Your task to perform on an android device: Toggle the flashlight Image 0: 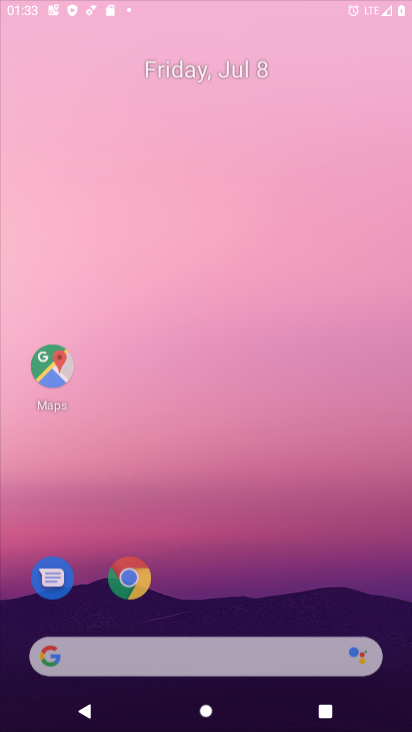
Step 0: click (319, 58)
Your task to perform on an android device: Toggle the flashlight Image 1: 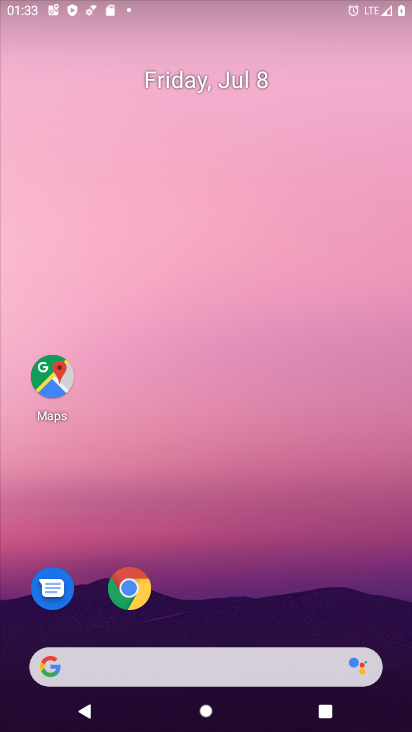
Step 1: drag from (204, 493) to (215, 82)
Your task to perform on an android device: Toggle the flashlight Image 2: 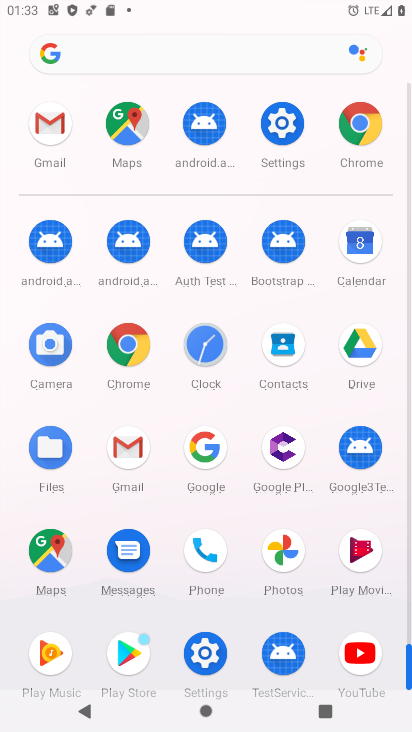
Step 2: click (271, 129)
Your task to perform on an android device: Toggle the flashlight Image 3: 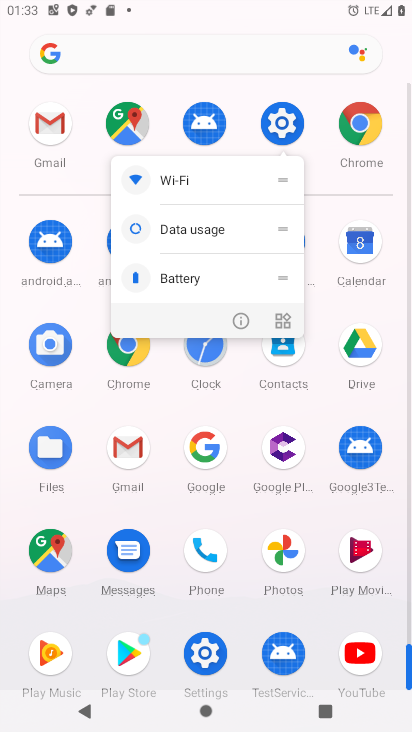
Step 3: click (236, 314)
Your task to perform on an android device: Toggle the flashlight Image 4: 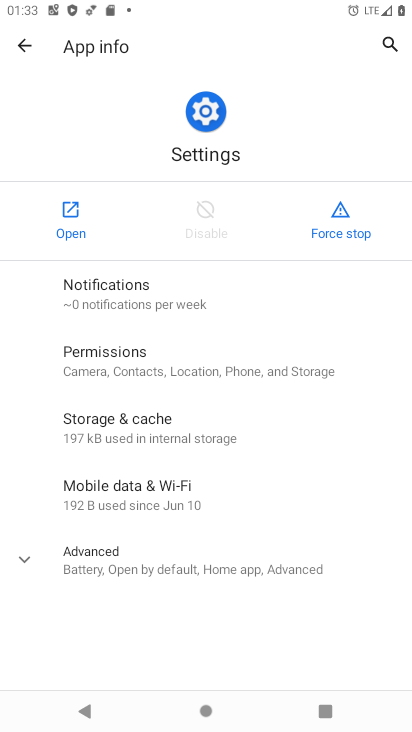
Step 4: click (67, 214)
Your task to perform on an android device: Toggle the flashlight Image 5: 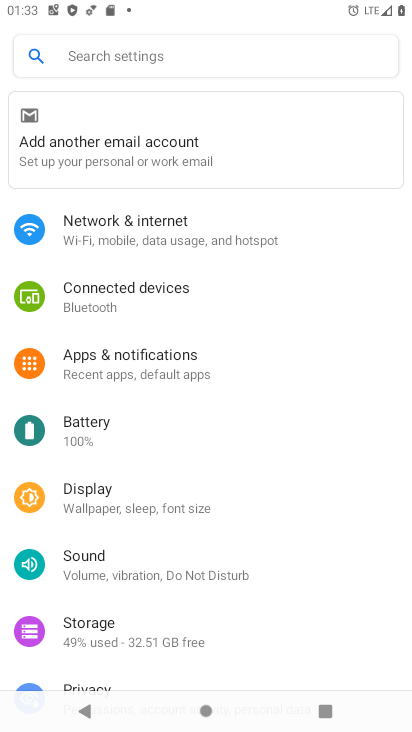
Step 5: click (187, 48)
Your task to perform on an android device: Toggle the flashlight Image 6: 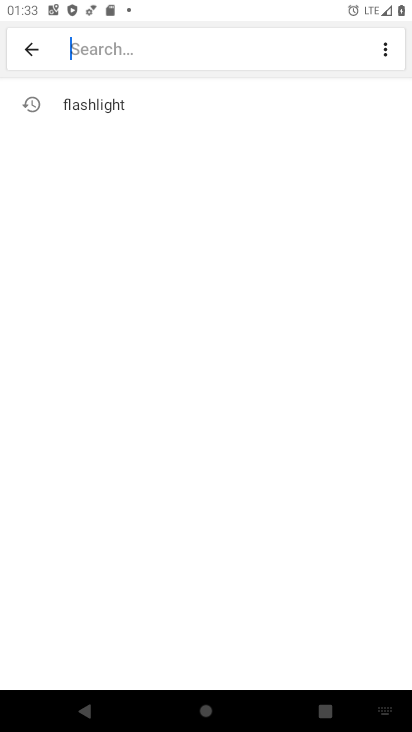
Step 6: click (103, 111)
Your task to perform on an android device: Toggle the flashlight Image 7: 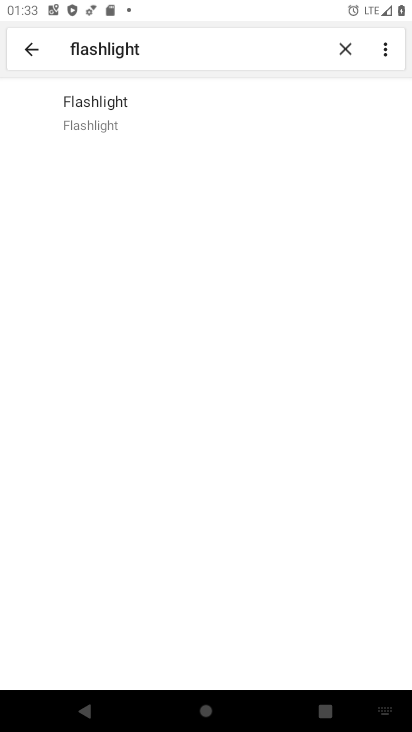
Step 7: click (135, 105)
Your task to perform on an android device: Toggle the flashlight Image 8: 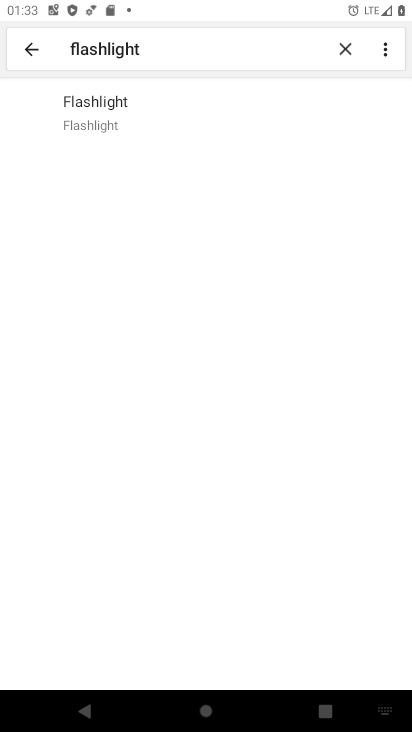
Step 8: task complete